Your task to perform on an android device: turn on priority inbox in the gmail app Image 0: 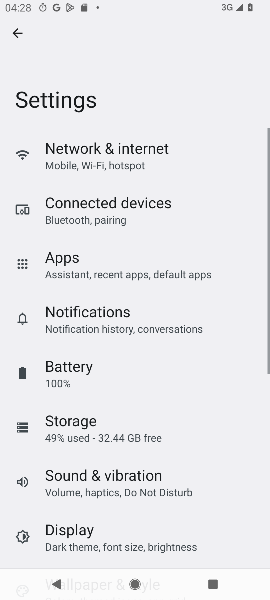
Step 0: press home button
Your task to perform on an android device: turn on priority inbox in the gmail app Image 1: 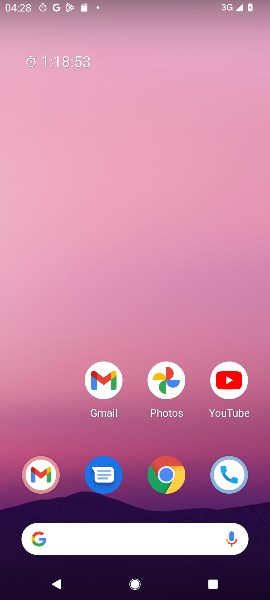
Step 1: drag from (64, 427) to (66, 149)
Your task to perform on an android device: turn on priority inbox in the gmail app Image 2: 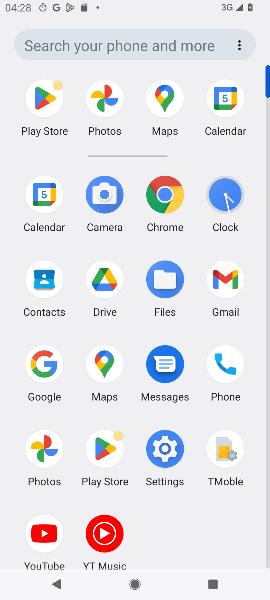
Step 2: click (225, 277)
Your task to perform on an android device: turn on priority inbox in the gmail app Image 3: 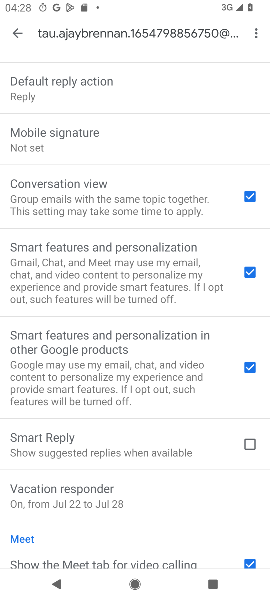
Step 3: drag from (194, 174) to (201, 232)
Your task to perform on an android device: turn on priority inbox in the gmail app Image 4: 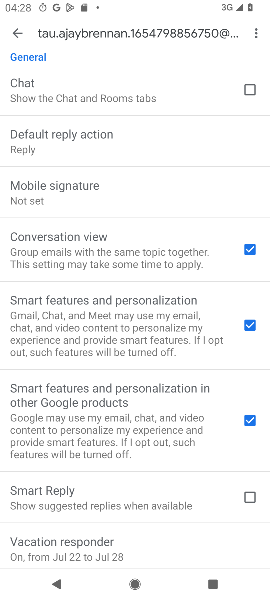
Step 4: drag from (203, 154) to (205, 225)
Your task to perform on an android device: turn on priority inbox in the gmail app Image 5: 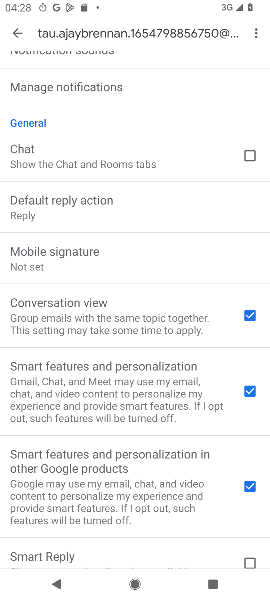
Step 5: drag from (197, 132) to (198, 201)
Your task to perform on an android device: turn on priority inbox in the gmail app Image 6: 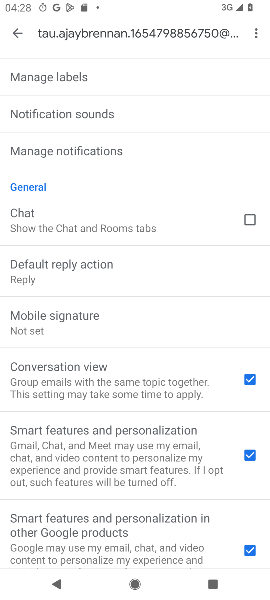
Step 6: drag from (193, 114) to (197, 196)
Your task to perform on an android device: turn on priority inbox in the gmail app Image 7: 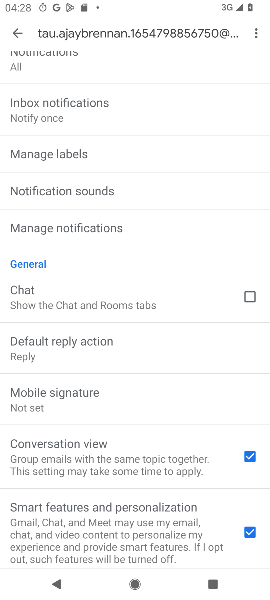
Step 7: drag from (199, 113) to (213, 189)
Your task to perform on an android device: turn on priority inbox in the gmail app Image 8: 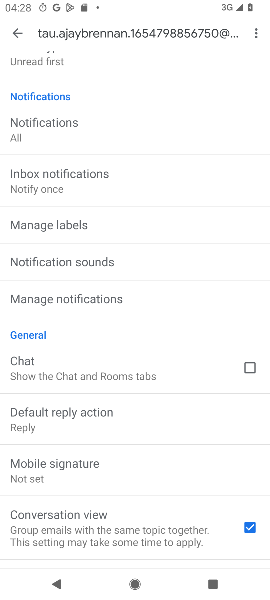
Step 8: drag from (206, 109) to (211, 177)
Your task to perform on an android device: turn on priority inbox in the gmail app Image 9: 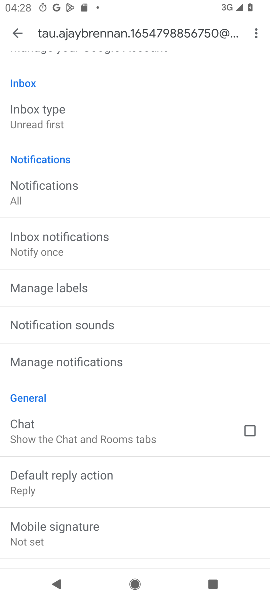
Step 9: drag from (193, 75) to (204, 186)
Your task to perform on an android device: turn on priority inbox in the gmail app Image 10: 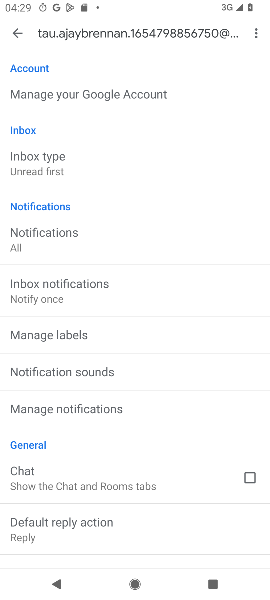
Step 10: click (82, 173)
Your task to perform on an android device: turn on priority inbox in the gmail app Image 11: 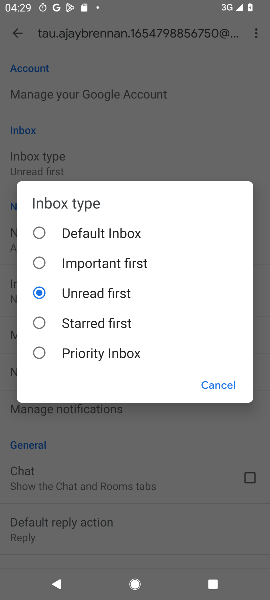
Step 11: click (99, 356)
Your task to perform on an android device: turn on priority inbox in the gmail app Image 12: 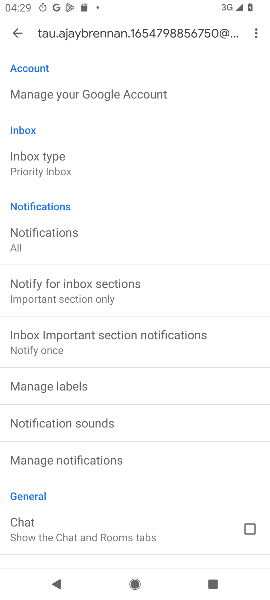
Step 12: task complete